Your task to perform on an android device: see creations saved in the google photos Image 0: 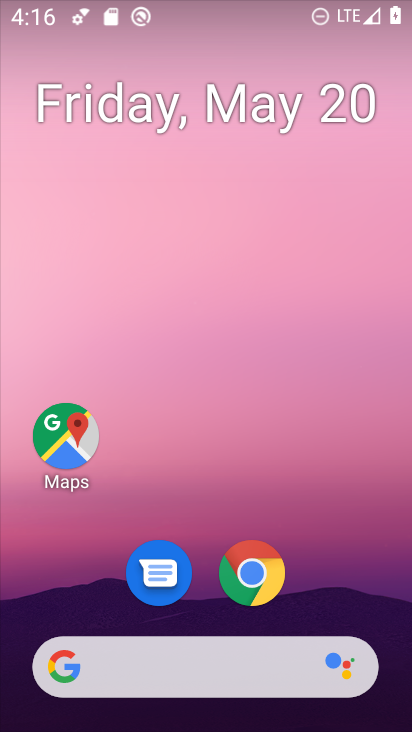
Step 0: drag from (361, 571) to (233, 120)
Your task to perform on an android device: see creations saved in the google photos Image 1: 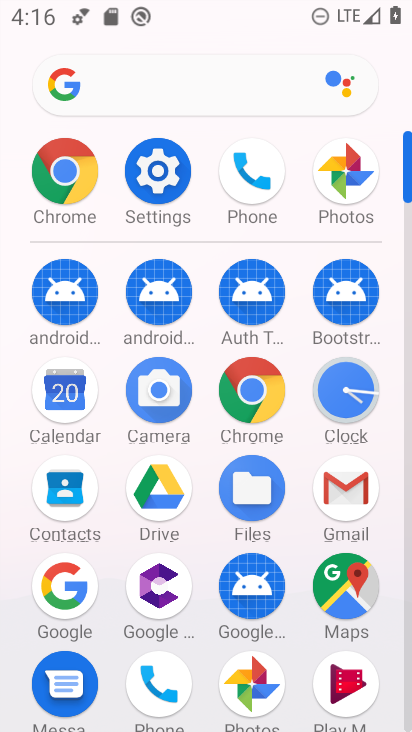
Step 1: click (354, 174)
Your task to perform on an android device: see creations saved in the google photos Image 2: 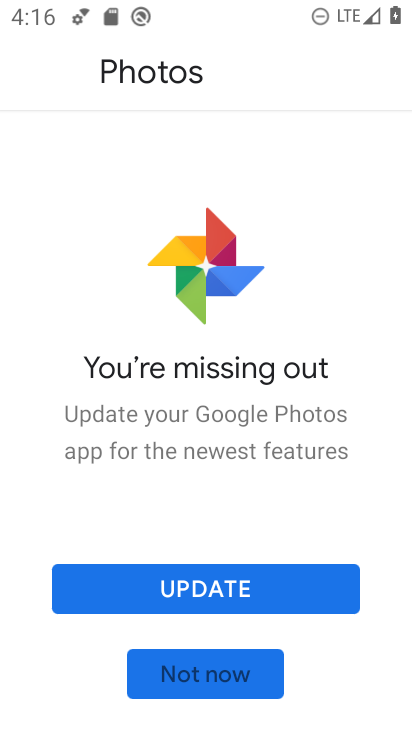
Step 2: click (269, 576)
Your task to perform on an android device: see creations saved in the google photos Image 3: 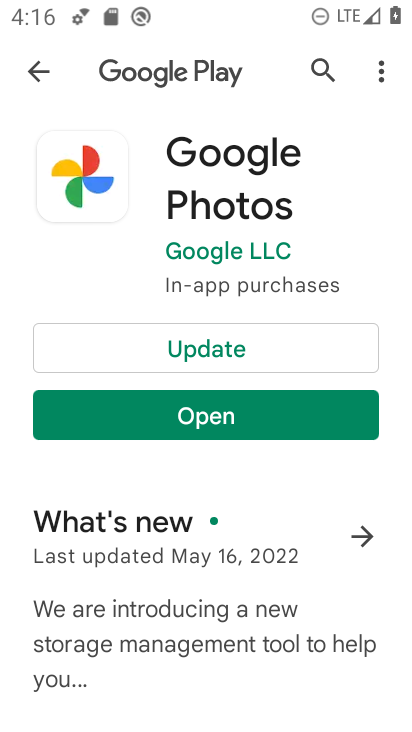
Step 3: click (246, 332)
Your task to perform on an android device: see creations saved in the google photos Image 4: 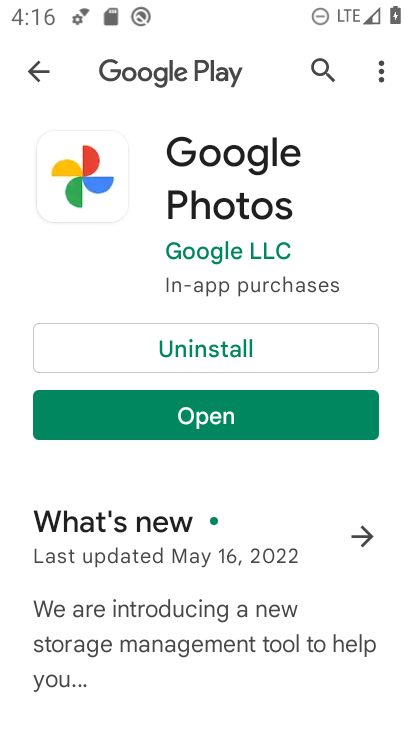
Step 4: click (252, 412)
Your task to perform on an android device: see creations saved in the google photos Image 5: 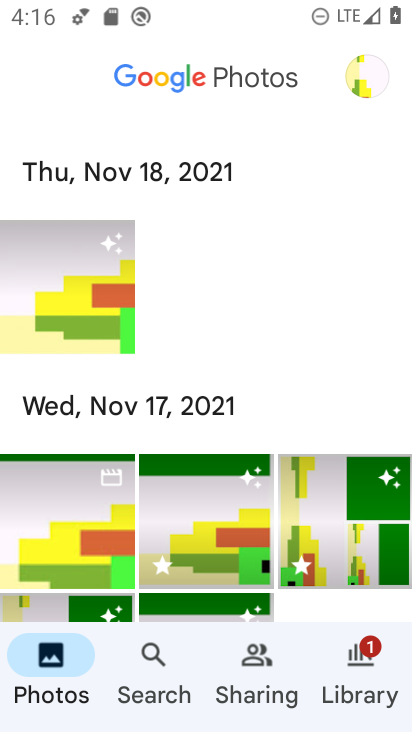
Step 5: click (164, 671)
Your task to perform on an android device: see creations saved in the google photos Image 6: 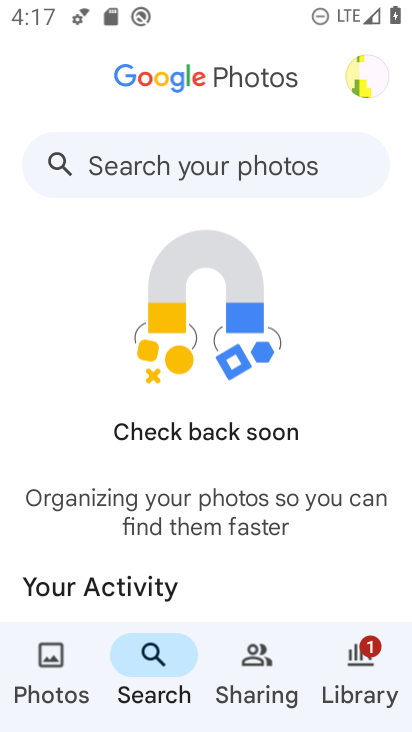
Step 6: drag from (244, 572) to (192, 307)
Your task to perform on an android device: see creations saved in the google photos Image 7: 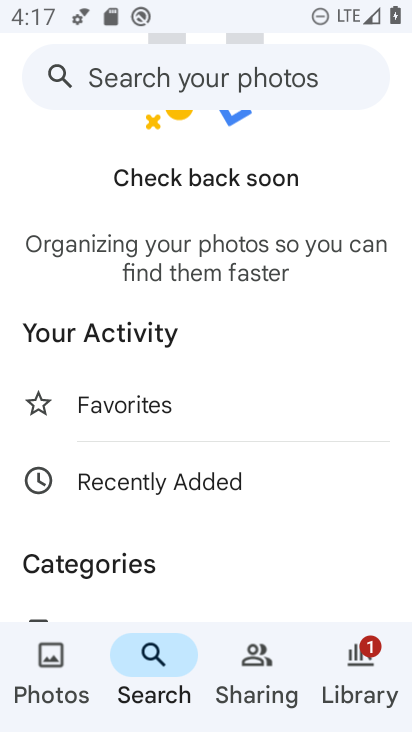
Step 7: drag from (204, 547) to (165, 287)
Your task to perform on an android device: see creations saved in the google photos Image 8: 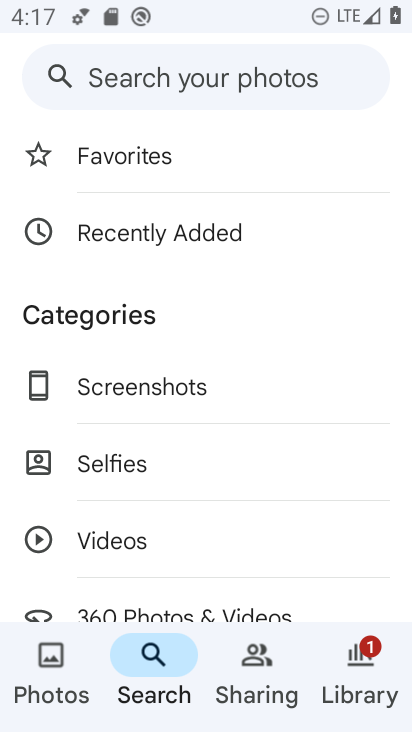
Step 8: drag from (264, 551) to (239, 250)
Your task to perform on an android device: see creations saved in the google photos Image 9: 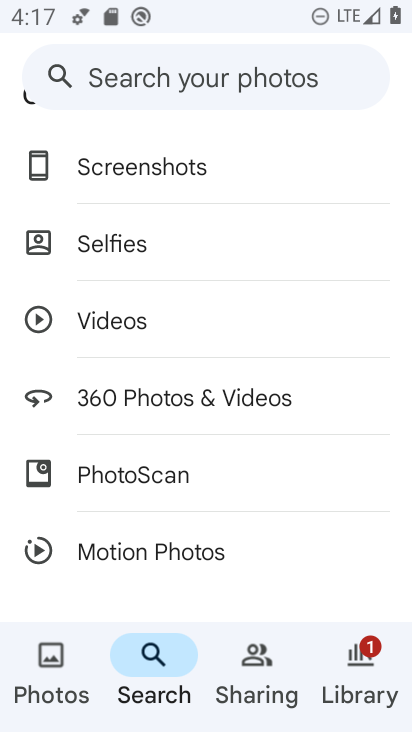
Step 9: drag from (300, 610) to (283, 318)
Your task to perform on an android device: see creations saved in the google photos Image 10: 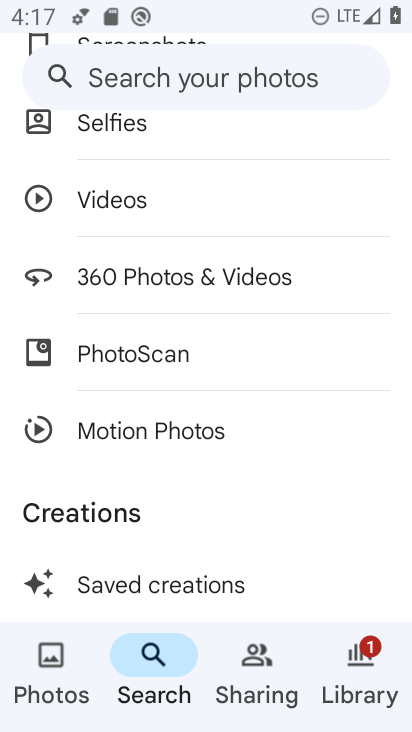
Step 10: click (252, 571)
Your task to perform on an android device: see creations saved in the google photos Image 11: 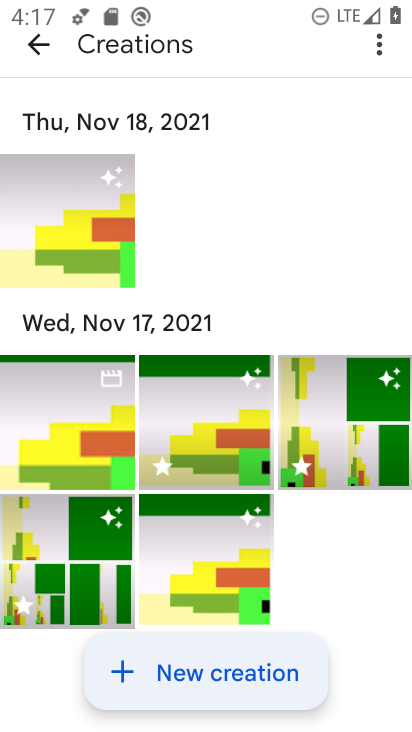
Step 11: task complete